Your task to perform on an android device: toggle improve location accuracy Image 0: 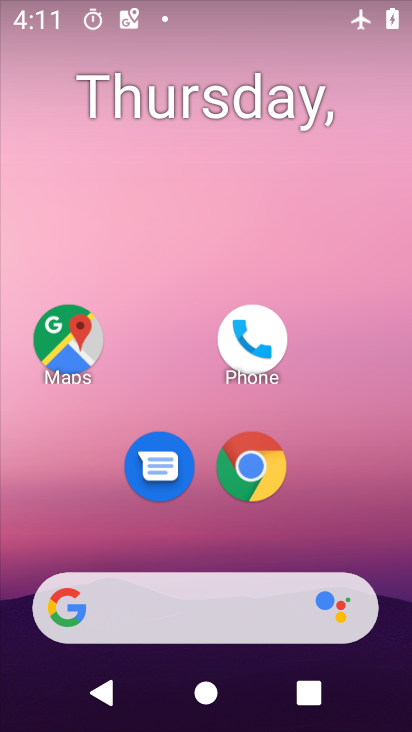
Step 0: drag from (214, 555) to (222, 182)
Your task to perform on an android device: toggle improve location accuracy Image 1: 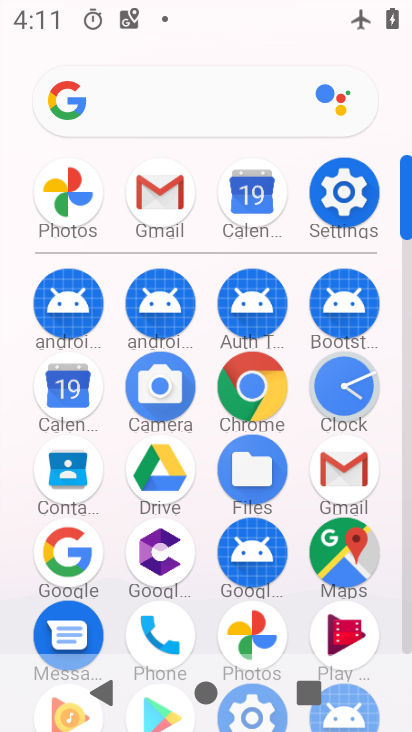
Step 1: drag from (193, 595) to (199, 279)
Your task to perform on an android device: toggle improve location accuracy Image 2: 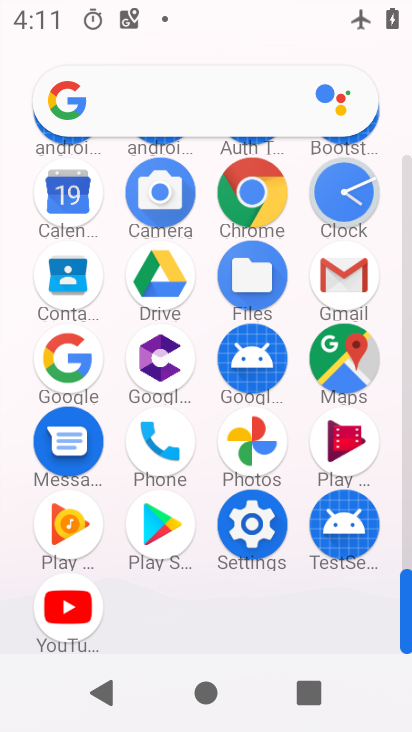
Step 2: click (246, 528)
Your task to perform on an android device: toggle improve location accuracy Image 3: 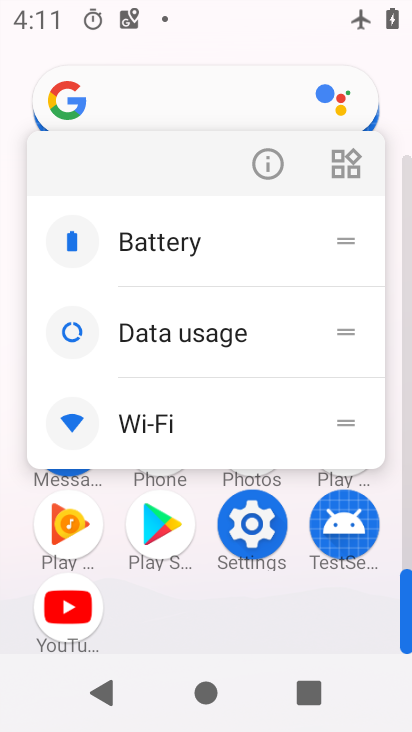
Step 3: click (260, 169)
Your task to perform on an android device: toggle improve location accuracy Image 4: 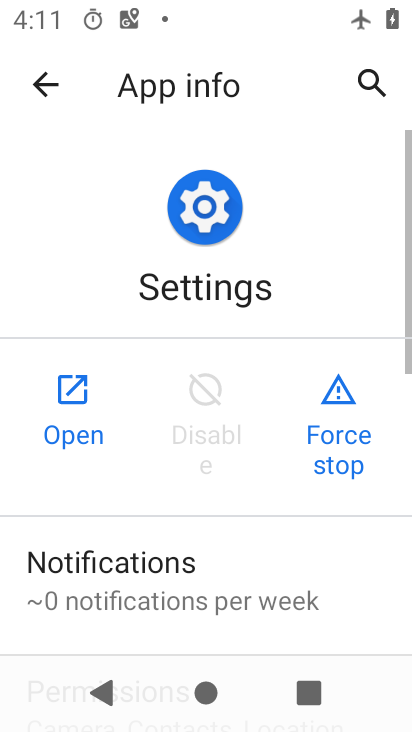
Step 4: click (54, 411)
Your task to perform on an android device: toggle improve location accuracy Image 5: 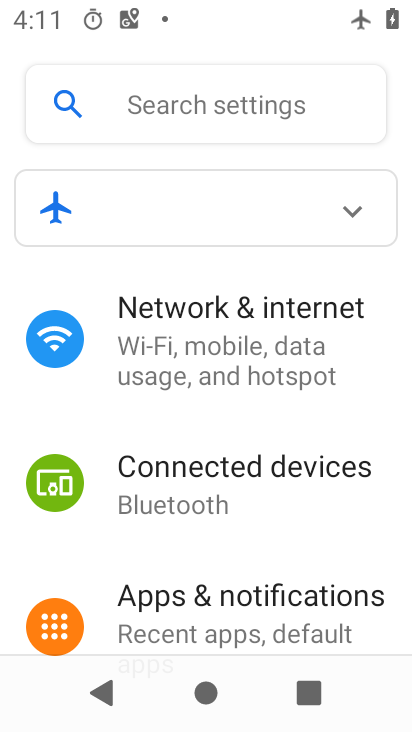
Step 5: drag from (224, 554) to (309, 9)
Your task to perform on an android device: toggle improve location accuracy Image 6: 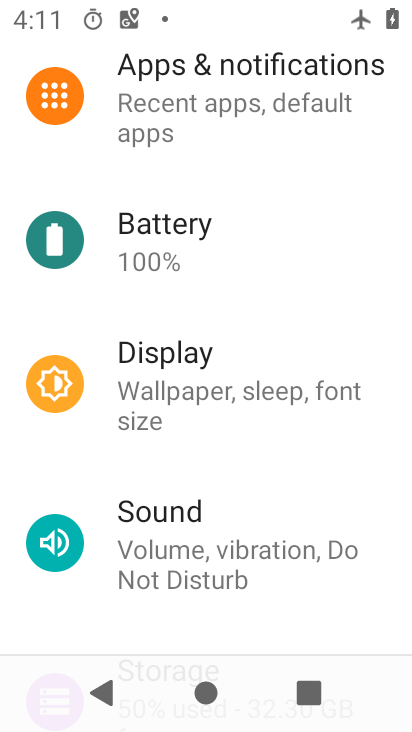
Step 6: drag from (185, 595) to (270, 114)
Your task to perform on an android device: toggle improve location accuracy Image 7: 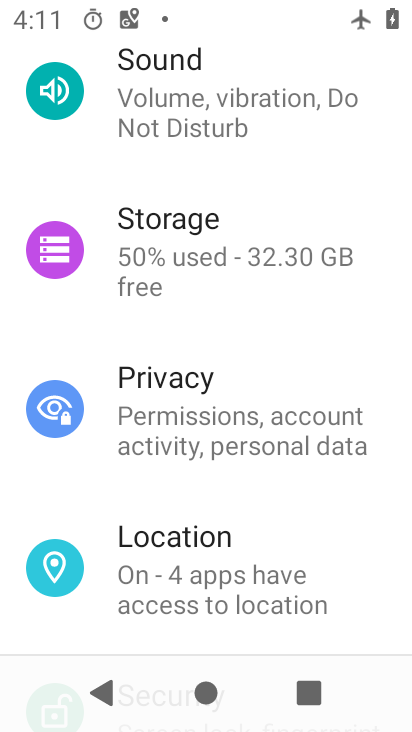
Step 7: drag from (201, 513) to (225, 239)
Your task to perform on an android device: toggle improve location accuracy Image 8: 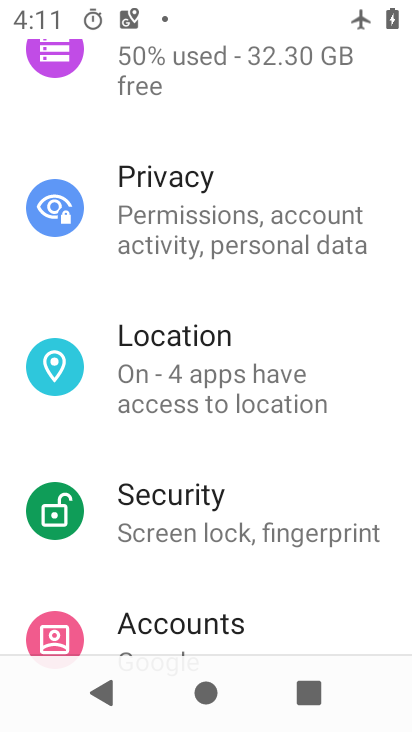
Step 8: drag from (179, 548) to (242, 187)
Your task to perform on an android device: toggle improve location accuracy Image 9: 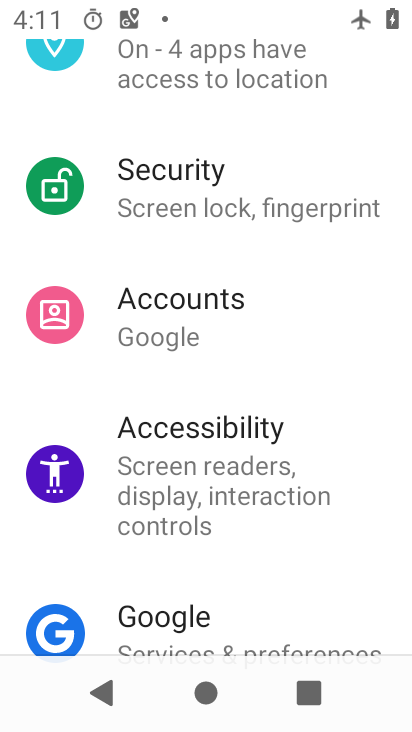
Step 9: drag from (205, 193) to (285, 731)
Your task to perform on an android device: toggle improve location accuracy Image 10: 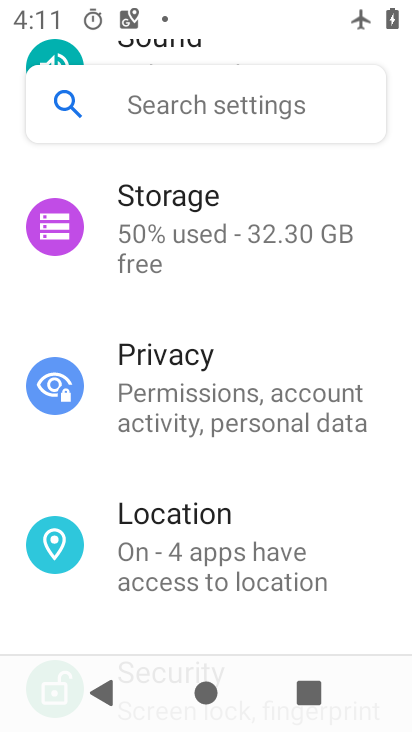
Step 10: click (213, 558)
Your task to perform on an android device: toggle improve location accuracy Image 11: 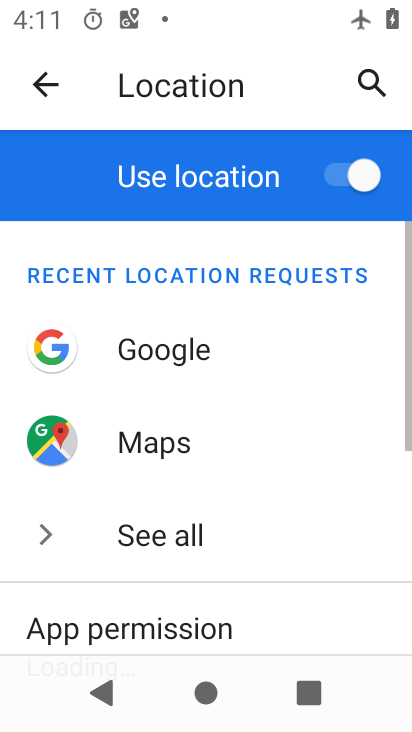
Step 11: drag from (217, 551) to (318, 192)
Your task to perform on an android device: toggle improve location accuracy Image 12: 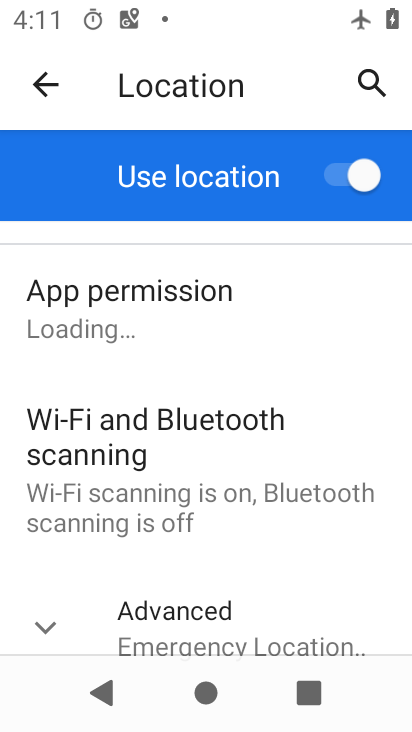
Step 12: drag from (249, 513) to (259, 243)
Your task to perform on an android device: toggle improve location accuracy Image 13: 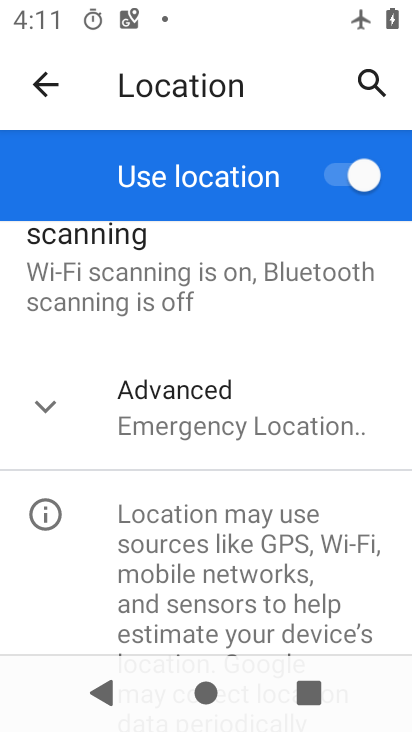
Step 13: click (166, 433)
Your task to perform on an android device: toggle improve location accuracy Image 14: 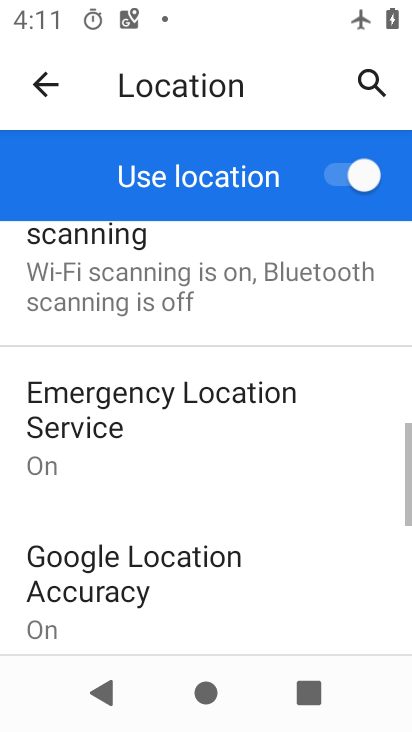
Step 14: drag from (226, 528) to (271, 214)
Your task to perform on an android device: toggle improve location accuracy Image 15: 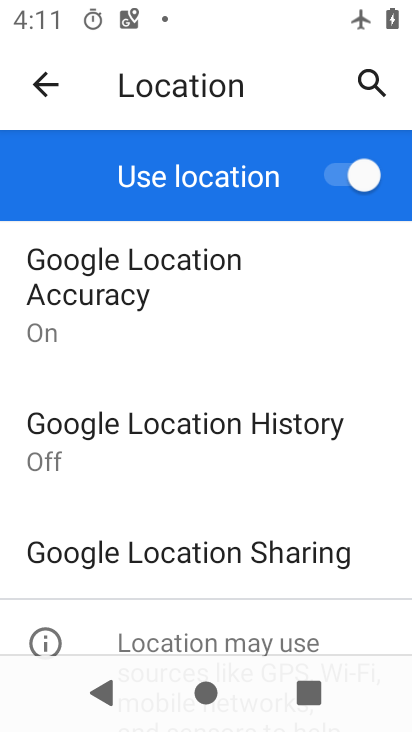
Step 15: click (185, 296)
Your task to perform on an android device: toggle improve location accuracy Image 16: 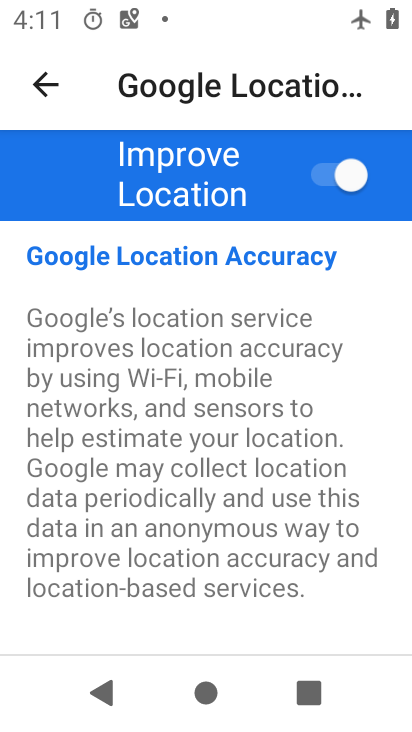
Step 16: click (333, 179)
Your task to perform on an android device: toggle improve location accuracy Image 17: 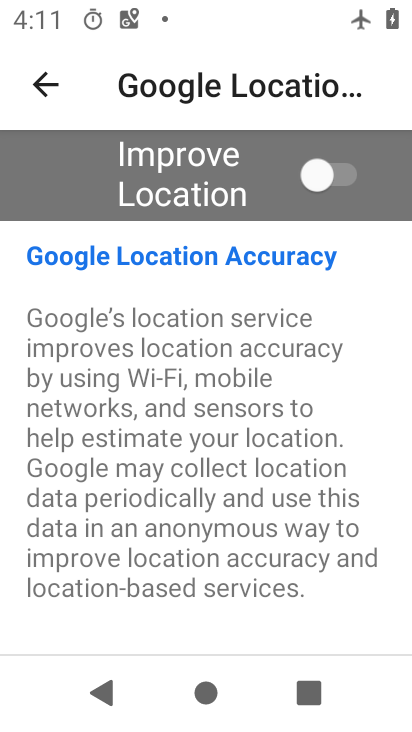
Step 17: task complete